Your task to perform on an android device: Is it going to rain this weekend? Image 0: 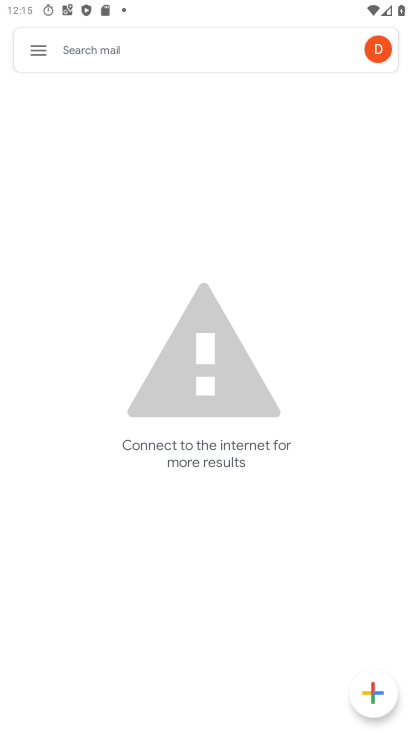
Step 0: press home button
Your task to perform on an android device: Is it going to rain this weekend? Image 1: 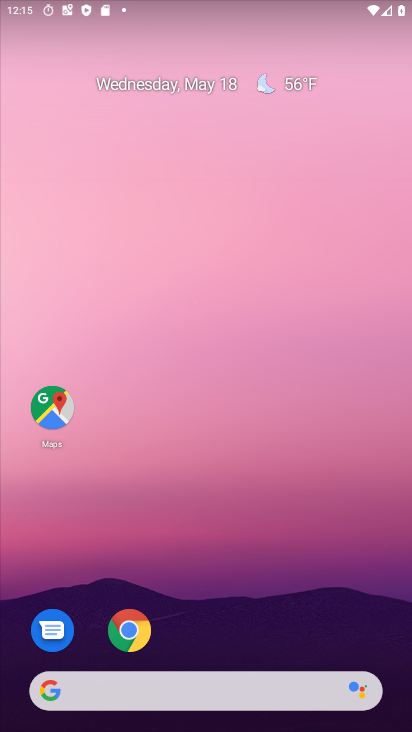
Step 1: click (66, 685)
Your task to perform on an android device: Is it going to rain this weekend? Image 2: 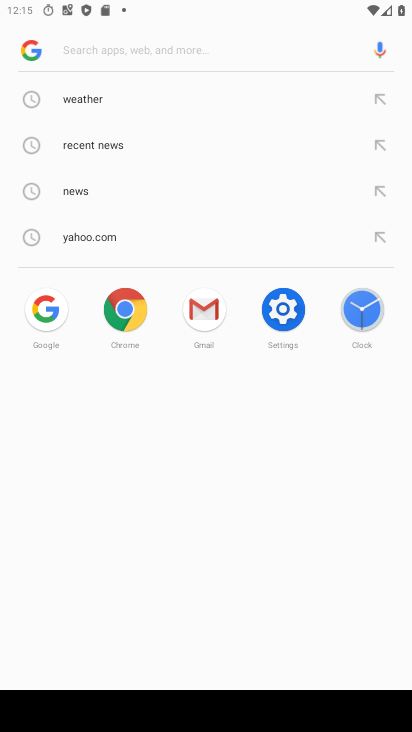
Step 2: click (149, 108)
Your task to perform on an android device: Is it going to rain this weekend? Image 3: 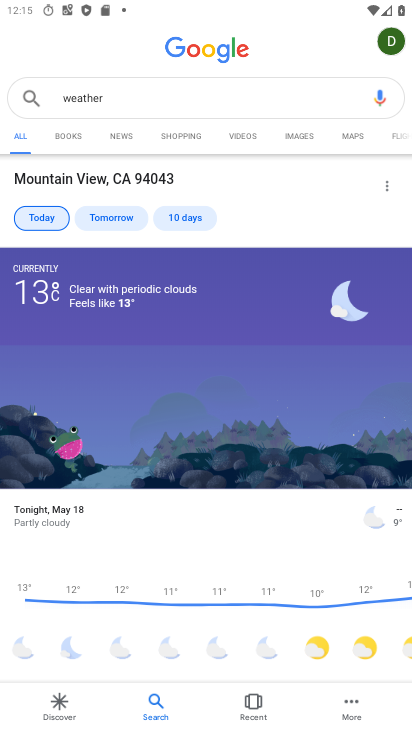
Step 3: click (197, 217)
Your task to perform on an android device: Is it going to rain this weekend? Image 4: 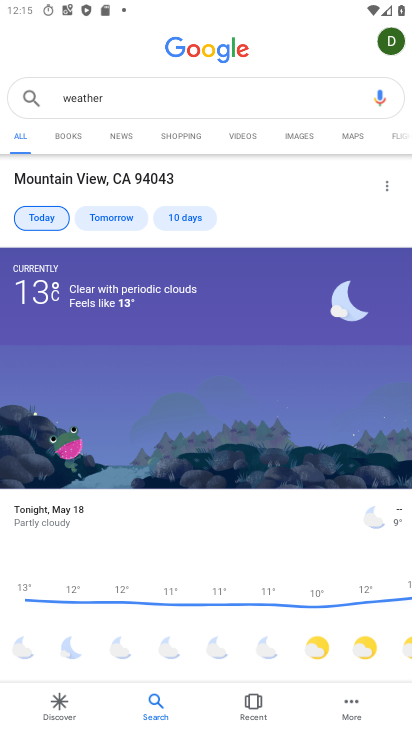
Step 4: click (197, 217)
Your task to perform on an android device: Is it going to rain this weekend? Image 5: 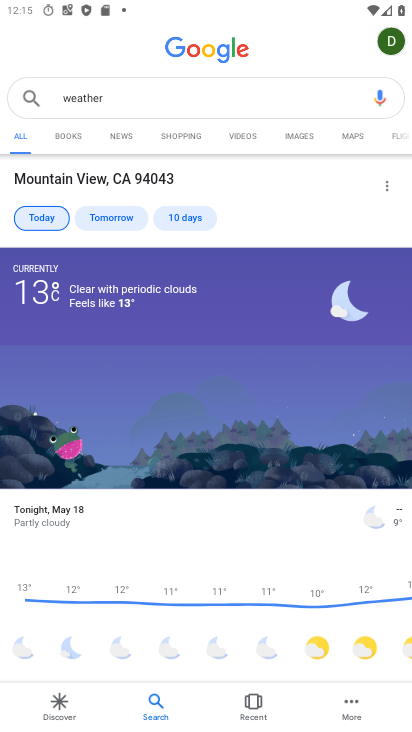
Step 5: click (197, 217)
Your task to perform on an android device: Is it going to rain this weekend? Image 6: 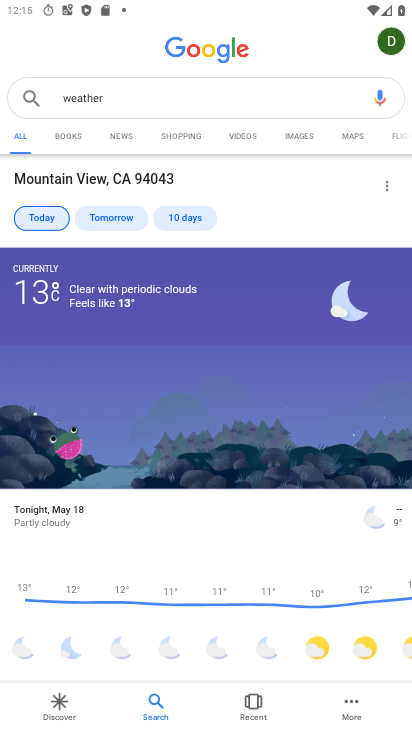
Step 6: click (187, 215)
Your task to perform on an android device: Is it going to rain this weekend? Image 7: 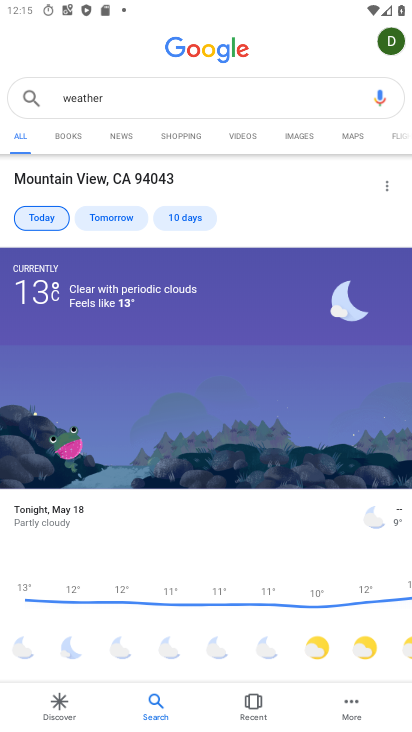
Step 7: click (187, 215)
Your task to perform on an android device: Is it going to rain this weekend? Image 8: 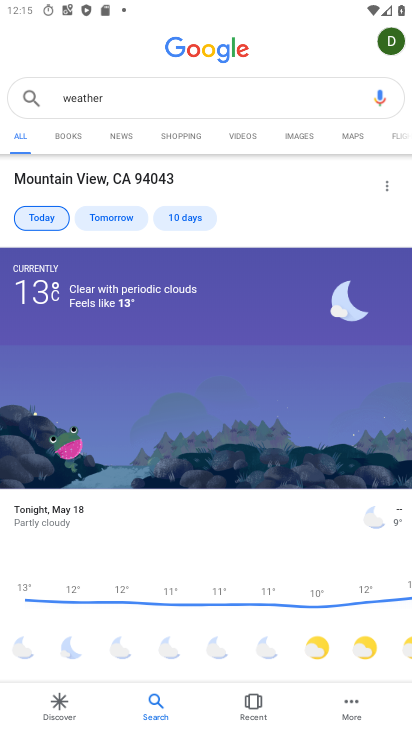
Step 8: click (187, 215)
Your task to perform on an android device: Is it going to rain this weekend? Image 9: 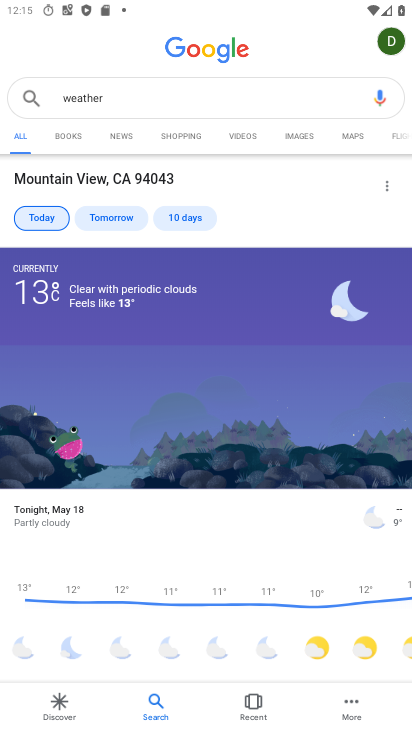
Step 9: click (187, 215)
Your task to perform on an android device: Is it going to rain this weekend? Image 10: 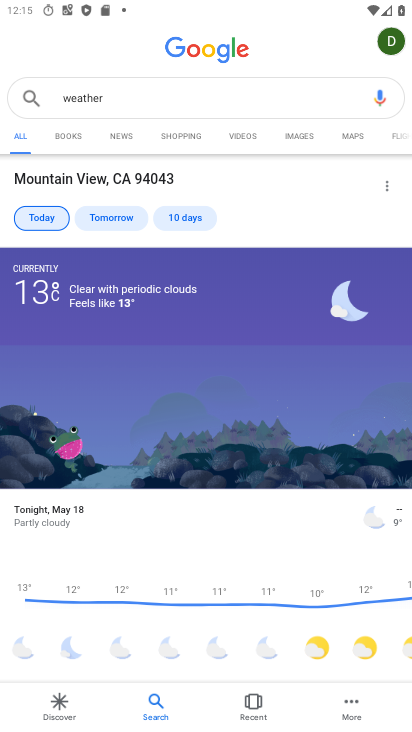
Step 10: click (185, 215)
Your task to perform on an android device: Is it going to rain this weekend? Image 11: 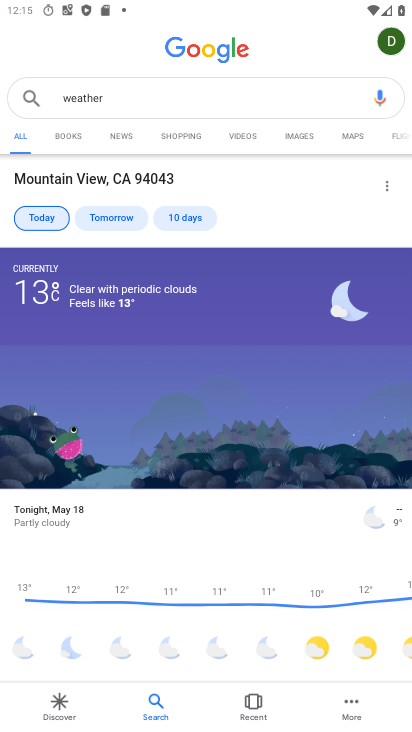
Step 11: click (185, 215)
Your task to perform on an android device: Is it going to rain this weekend? Image 12: 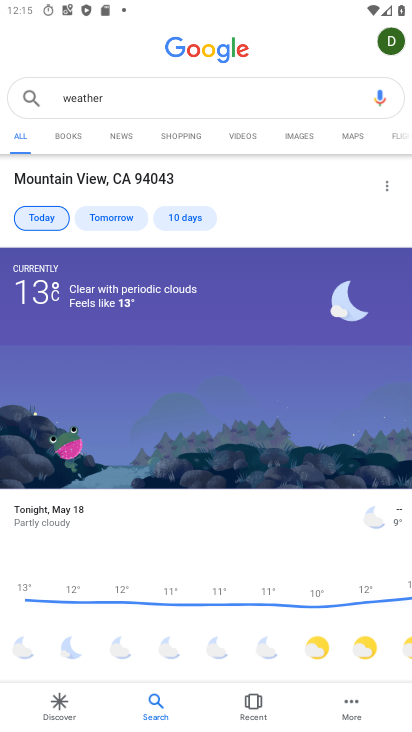
Step 12: click (185, 215)
Your task to perform on an android device: Is it going to rain this weekend? Image 13: 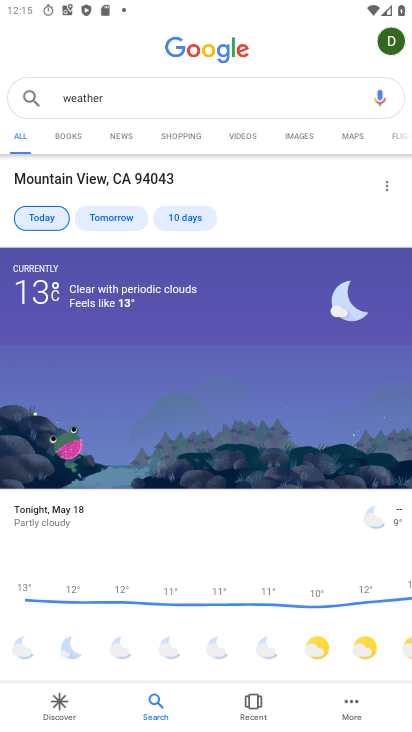
Step 13: click (185, 215)
Your task to perform on an android device: Is it going to rain this weekend? Image 14: 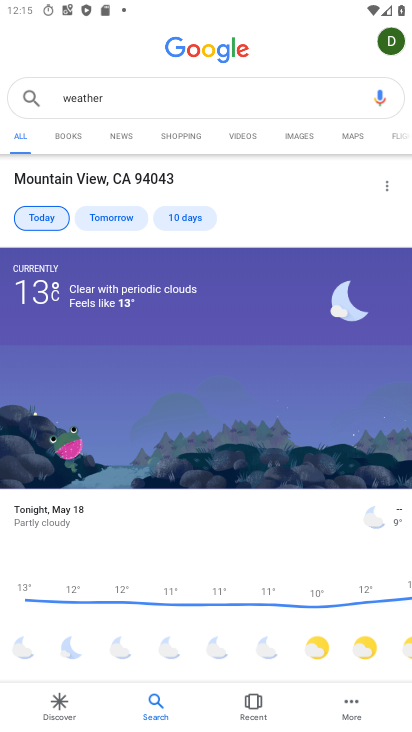
Step 14: click (185, 215)
Your task to perform on an android device: Is it going to rain this weekend? Image 15: 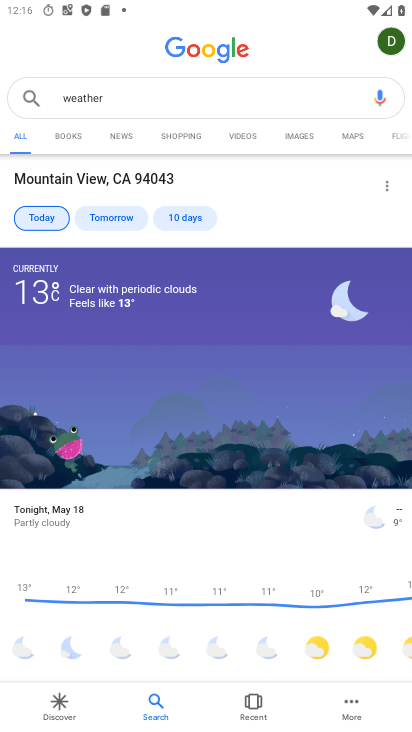
Step 15: click (183, 213)
Your task to perform on an android device: Is it going to rain this weekend? Image 16: 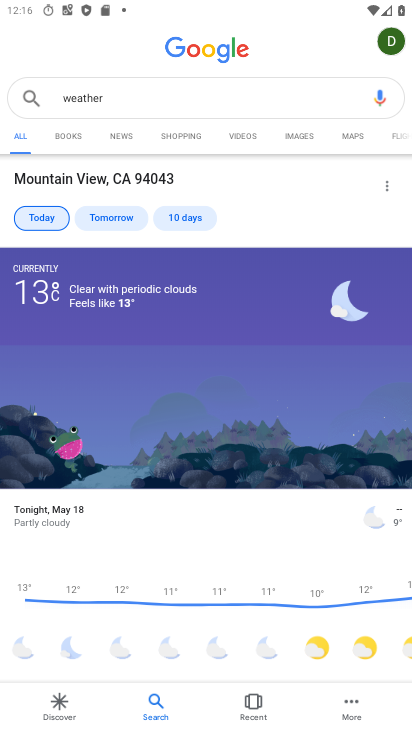
Step 16: click (183, 213)
Your task to perform on an android device: Is it going to rain this weekend? Image 17: 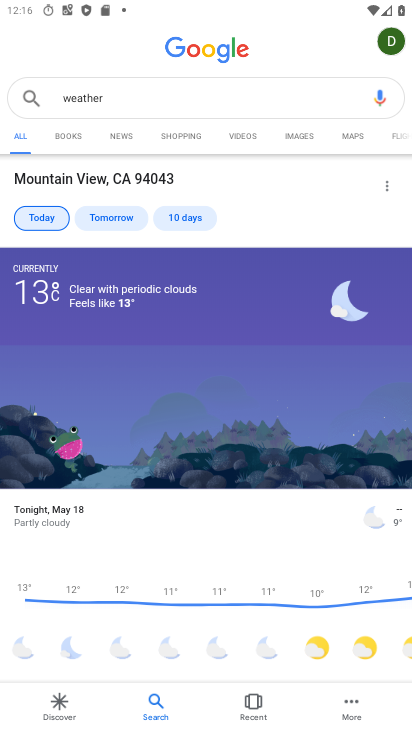
Step 17: click (183, 213)
Your task to perform on an android device: Is it going to rain this weekend? Image 18: 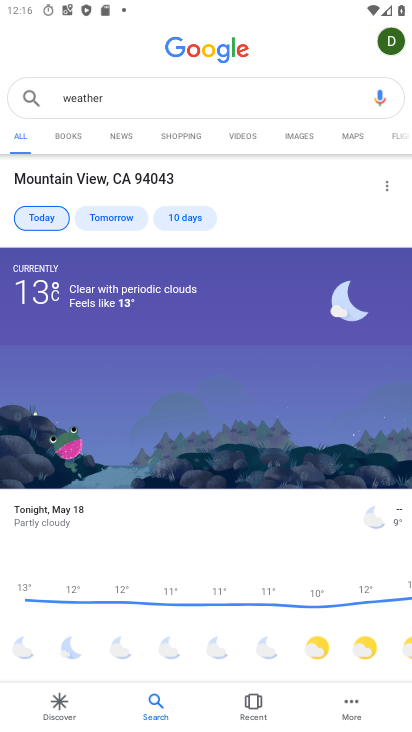
Step 18: click (93, 209)
Your task to perform on an android device: Is it going to rain this weekend? Image 19: 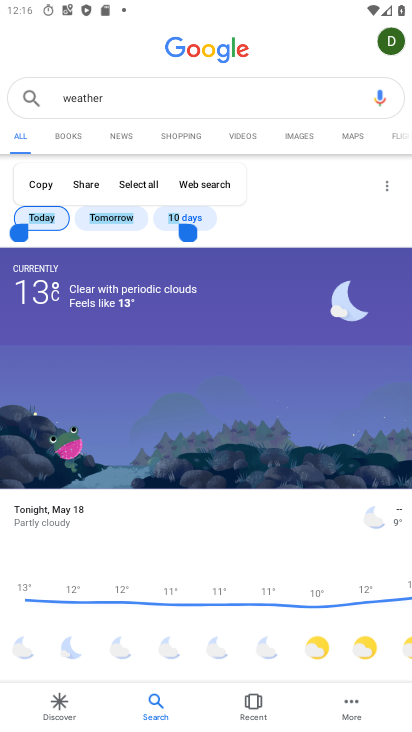
Step 19: click (196, 227)
Your task to perform on an android device: Is it going to rain this weekend? Image 20: 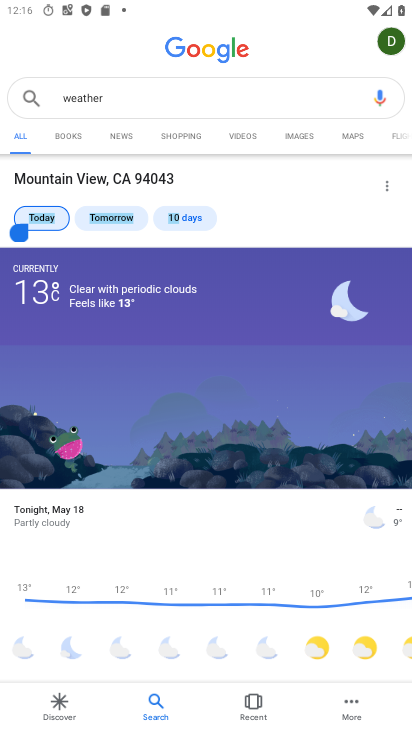
Step 20: click (196, 227)
Your task to perform on an android device: Is it going to rain this weekend? Image 21: 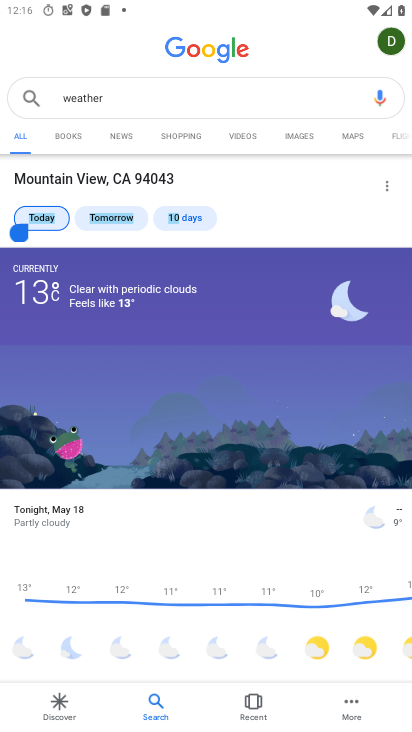
Step 21: click (196, 227)
Your task to perform on an android device: Is it going to rain this weekend? Image 22: 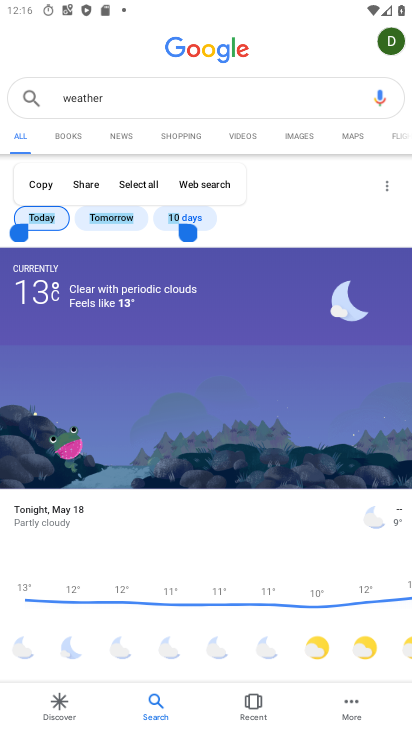
Step 22: click (208, 215)
Your task to perform on an android device: Is it going to rain this weekend? Image 23: 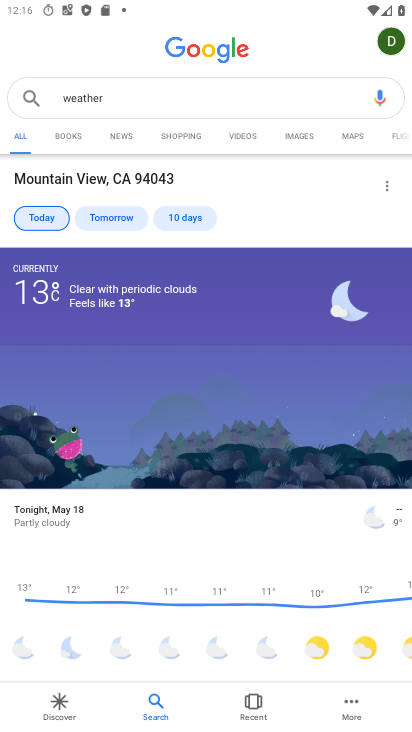
Step 23: click (201, 229)
Your task to perform on an android device: Is it going to rain this weekend? Image 24: 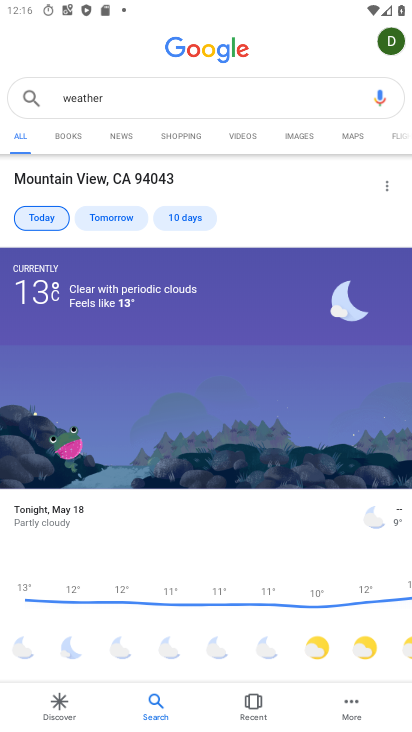
Step 24: click (197, 225)
Your task to perform on an android device: Is it going to rain this weekend? Image 25: 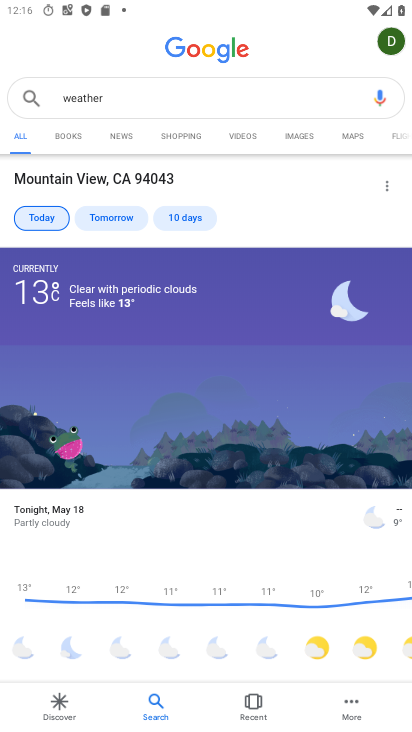
Step 25: click (196, 223)
Your task to perform on an android device: Is it going to rain this weekend? Image 26: 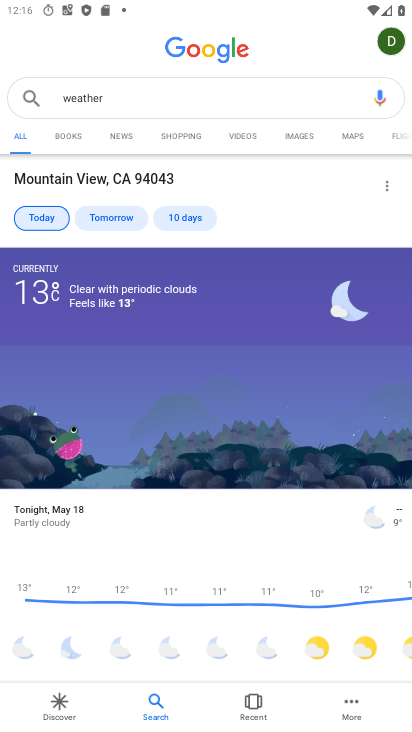
Step 26: click (196, 223)
Your task to perform on an android device: Is it going to rain this weekend? Image 27: 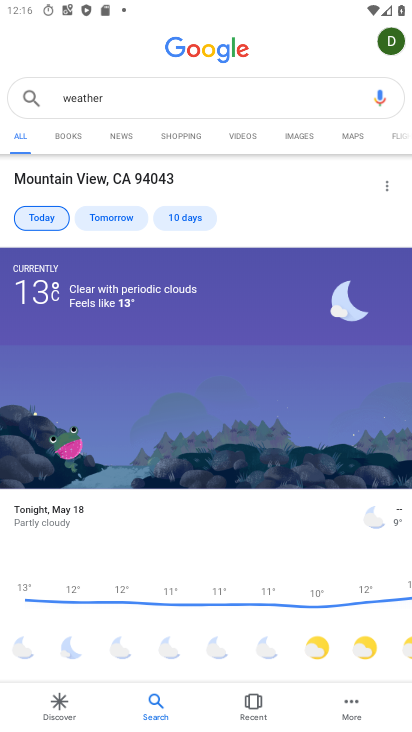
Step 27: click (170, 222)
Your task to perform on an android device: Is it going to rain this weekend? Image 28: 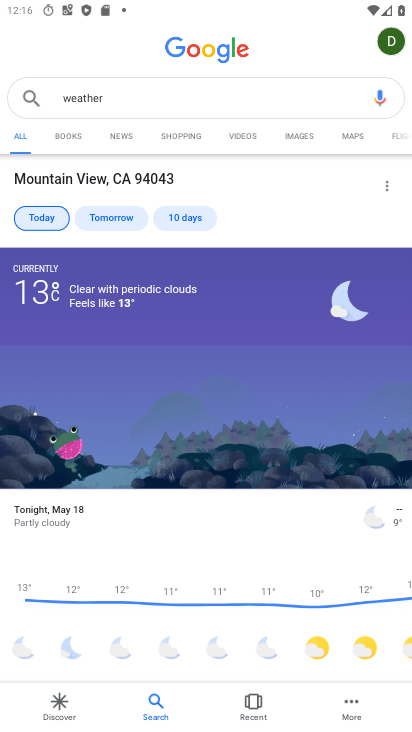
Step 28: click (170, 222)
Your task to perform on an android device: Is it going to rain this weekend? Image 29: 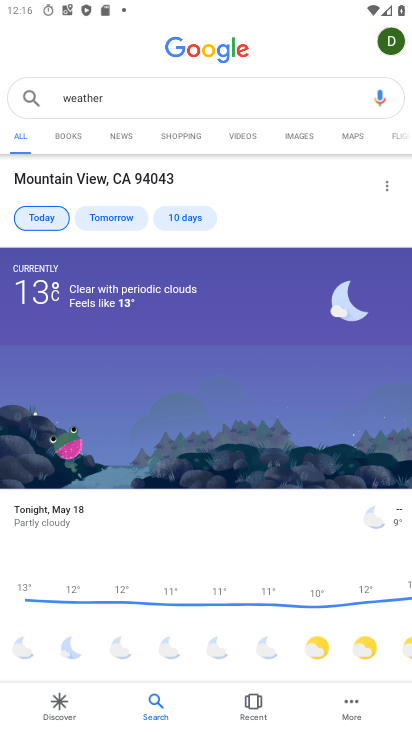
Step 29: task complete